Your task to perform on an android device: Go to battery settings Image 0: 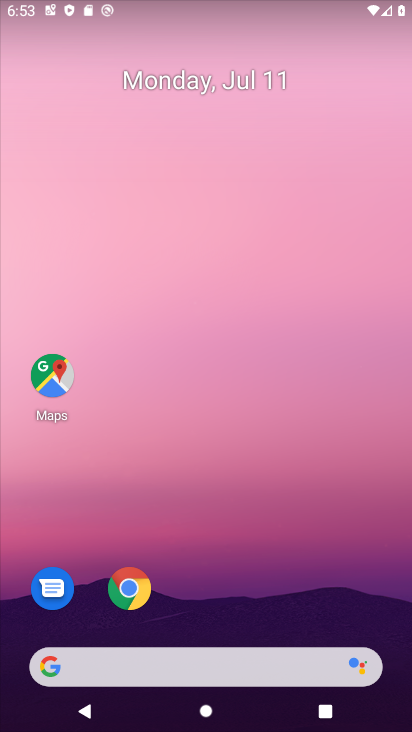
Step 0: drag from (394, 655) to (311, 88)
Your task to perform on an android device: Go to battery settings Image 1: 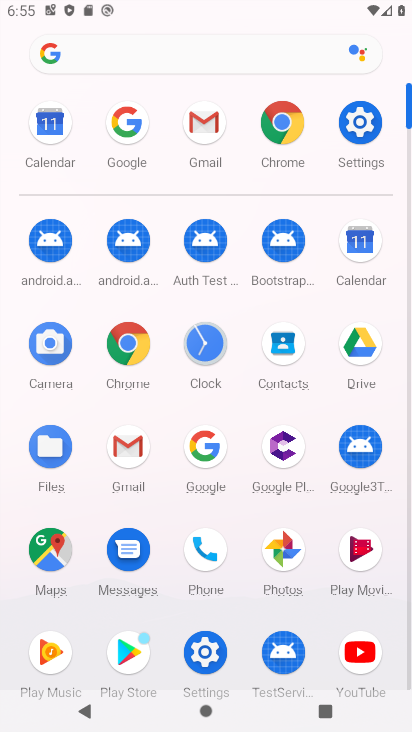
Step 1: click (191, 653)
Your task to perform on an android device: Go to battery settings Image 2: 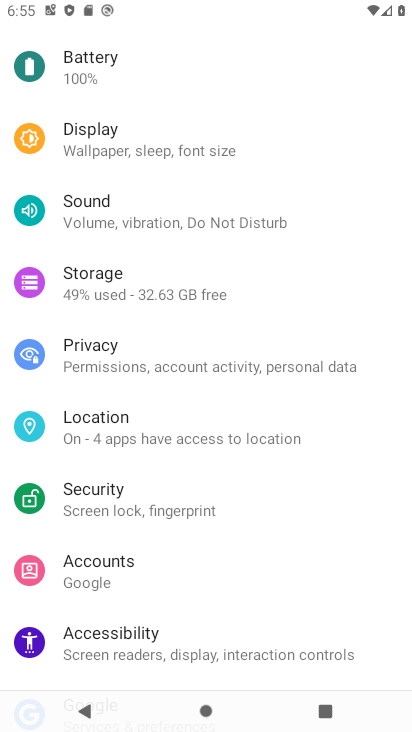
Step 2: click (113, 72)
Your task to perform on an android device: Go to battery settings Image 3: 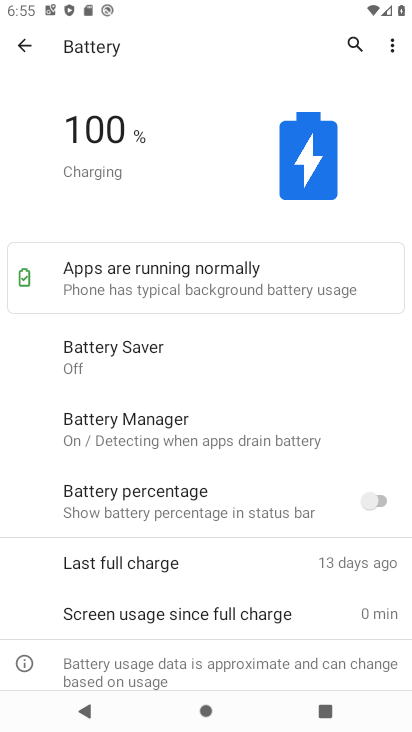
Step 3: task complete